Your task to perform on an android device: toggle javascript in the chrome app Image 0: 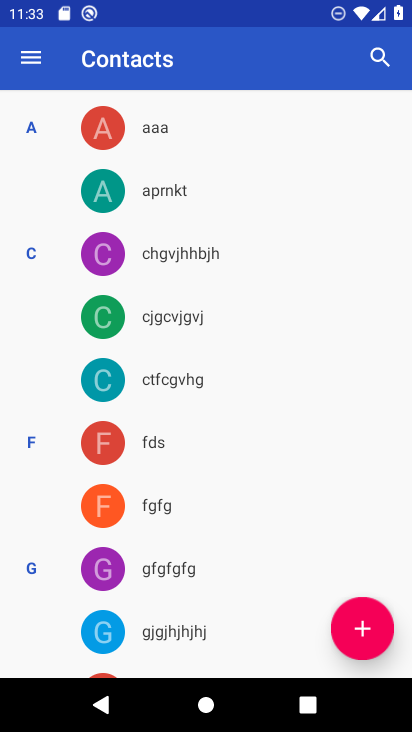
Step 0: press home button
Your task to perform on an android device: toggle javascript in the chrome app Image 1: 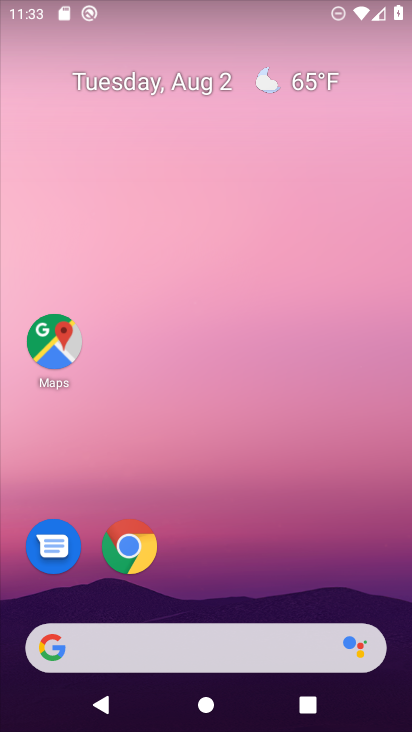
Step 1: click (152, 544)
Your task to perform on an android device: toggle javascript in the chrome app Image 2: 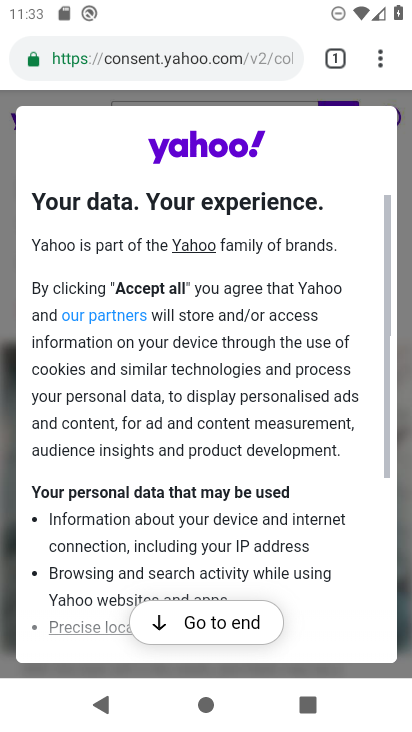
Step 2: click (369, 58)
Your task to perform on an android device: toggle javascript in the chrome app Image 3: 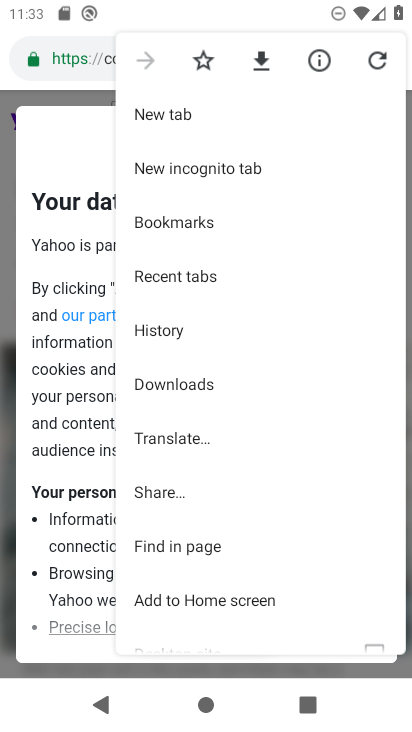
Step 3: drag from (219, 485) to (244, 219)
Your task to perform on an android device: toggle javascript in the chrome app Image 4: 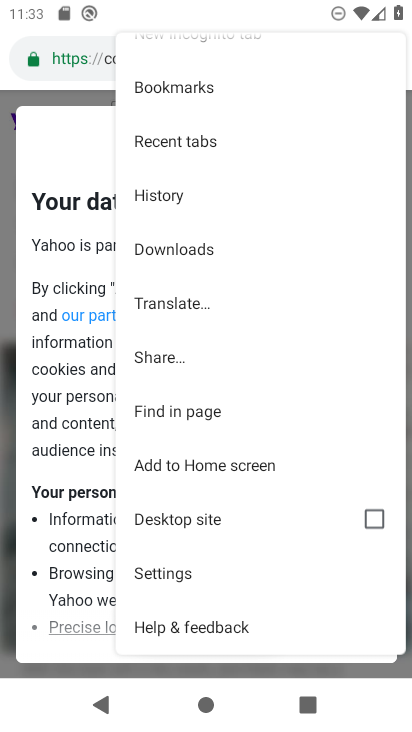
Step 4: click (195, 566)
Your task to perform on an android device: toggle javascript in the chrome app Image 5: 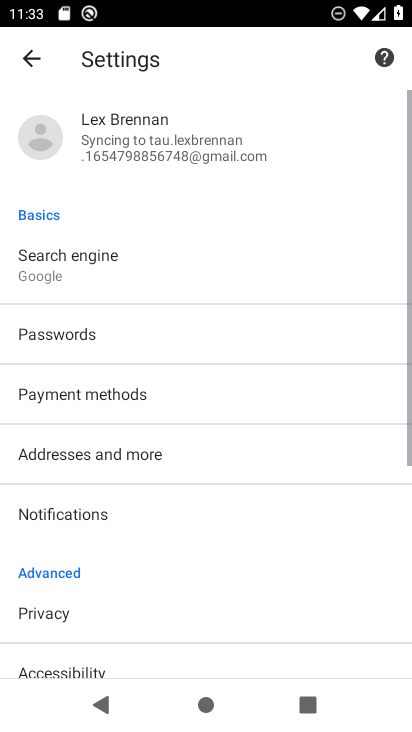
Step 5: drag from (188, 616) to (234, 142)
Your task to perform on an android device: toggle javascript in the chrome app Image 6: 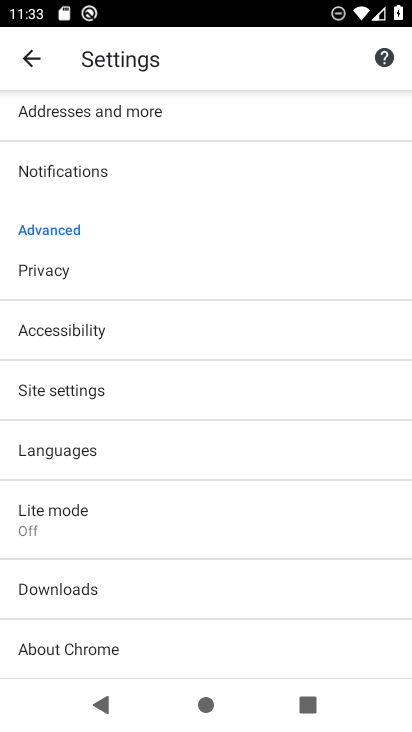
Step 6: click (133, 381)
Your task to perform on an android device: toggle javascript in the chrome app Image 7: 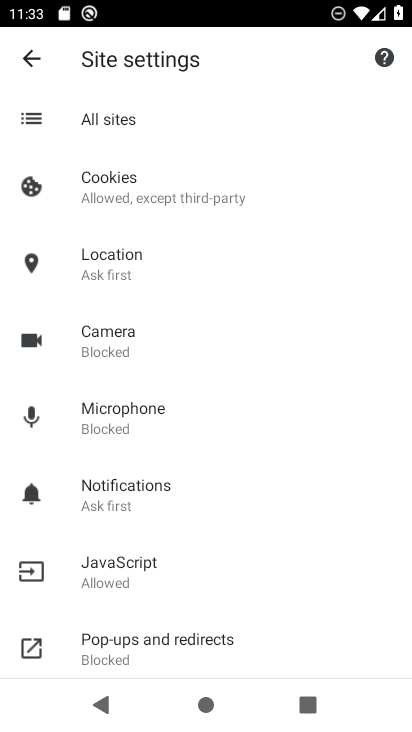
Step 7: click (168, 577)
Your task to perform on an android device: toggle javascript in the chrome app Image 8: 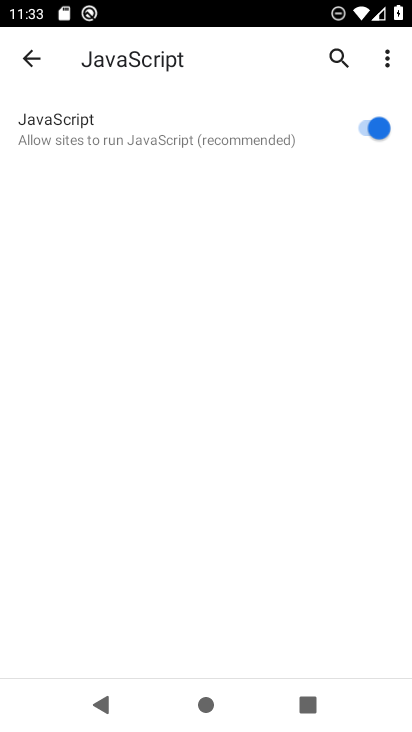
Step 8: click (377, 128)
Your task to perform on an android device: toggle javascript in the chrome app Image 9: 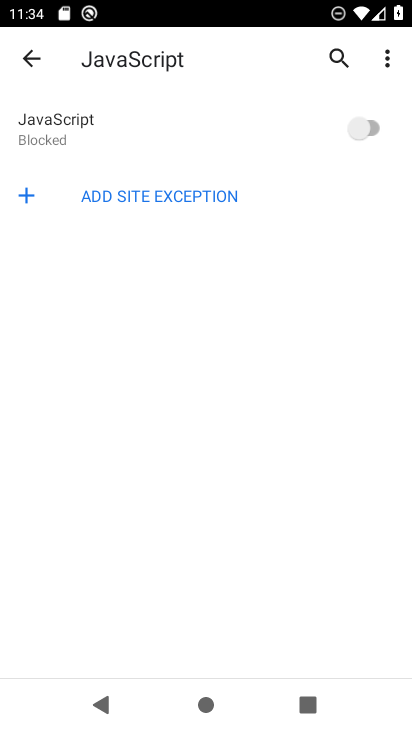
Step 9: task complete